Your task to perform on an android device: Open Chrome and go to settings Image 0: 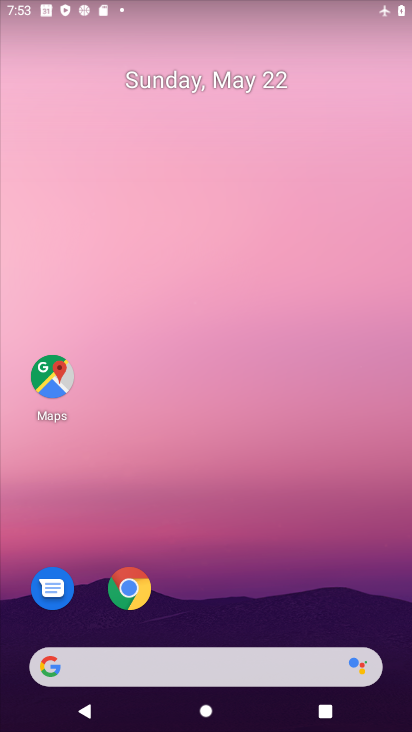
Step 0: click (123, 595)
Your task to perform on an android device: Open Chrome and go to settings Image 1: 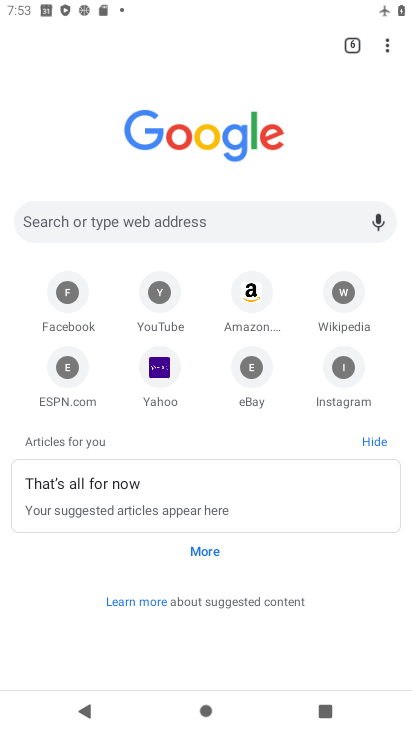
Step 1: click (392, 45)
Your task to perform on an android device: Open Chrome and go to settings Image 2: 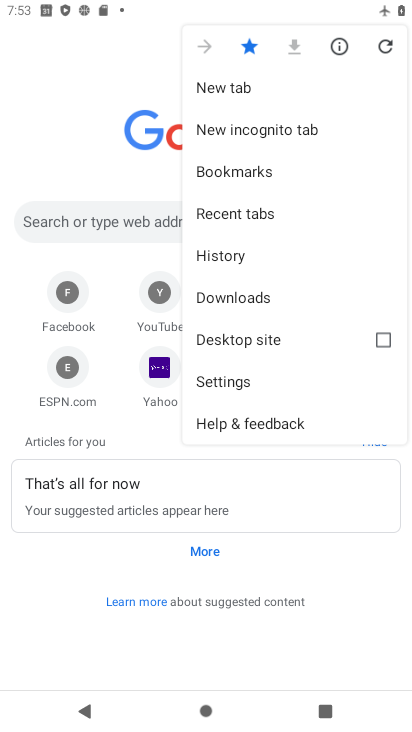
Step 2: click (217, 377)
Your task to perform on an android device: Open Chrome and go to settings Image 3: 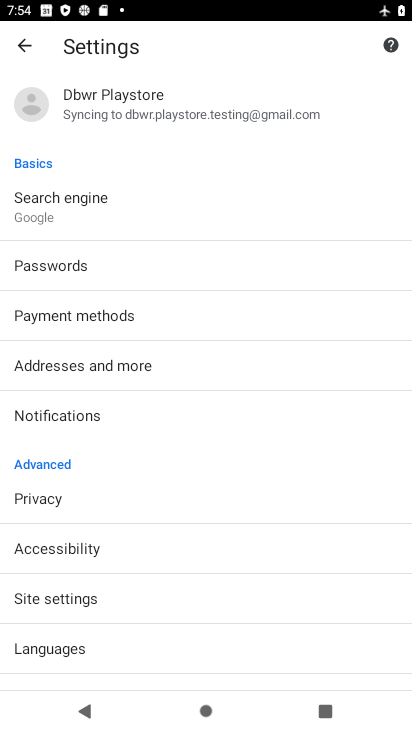
Step 3: task complete